Your task to perform on an android device: open a bookmark in the chrome app Image 0: 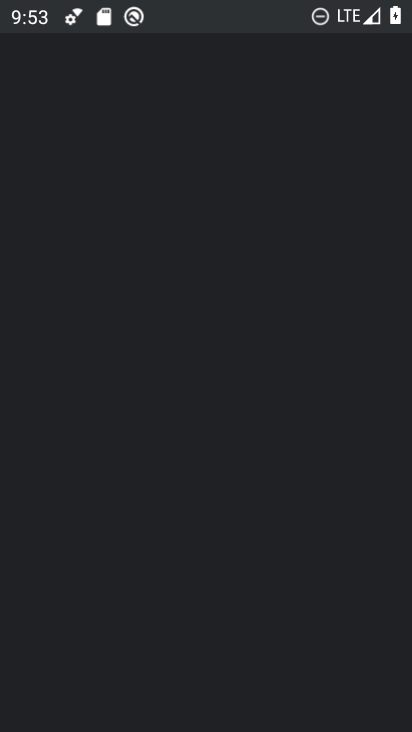
Step 0: drag from (353, 597) to (236, 163)
Your task to perform on an android device: open a bookmark in the chrome app Image 1: 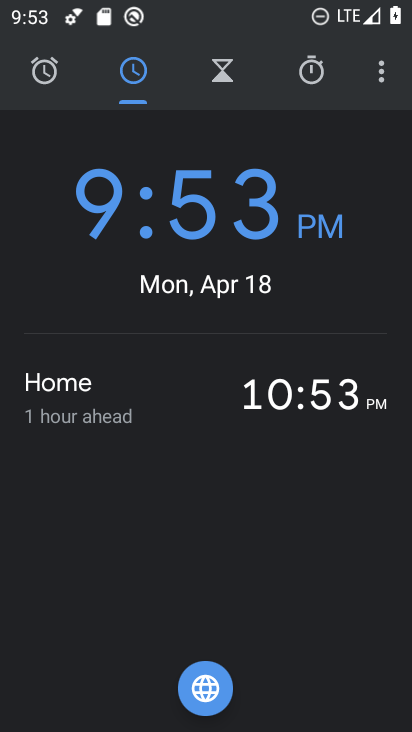
Step 1: press home button
Your task to perform on an android device: open a bookmark in the chrome app Image 2: 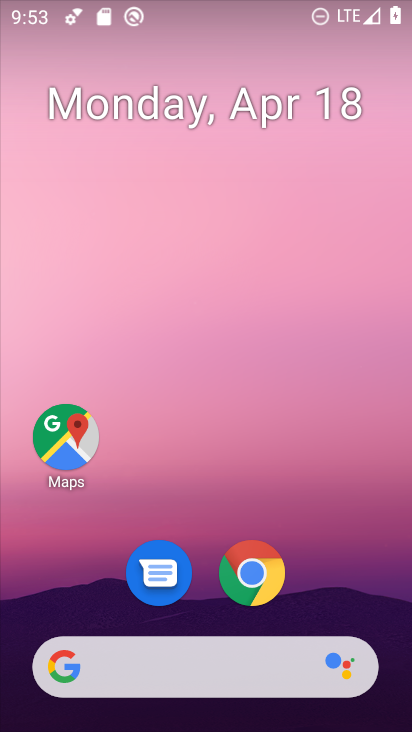
Step 2: drag from (326, 527) to (245, 45)
Your task to perform on an android device: open a bookmark in the chrome app Image 3: 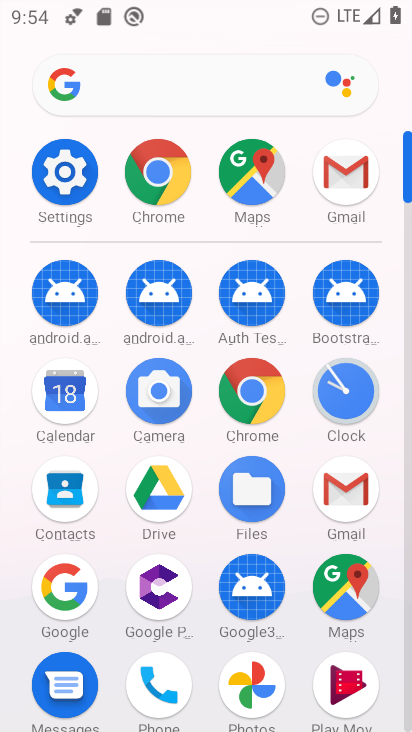
Step 3: click (246, 398)
Your task to perform on an android device: open a bookmark in the chrome app Image 4: 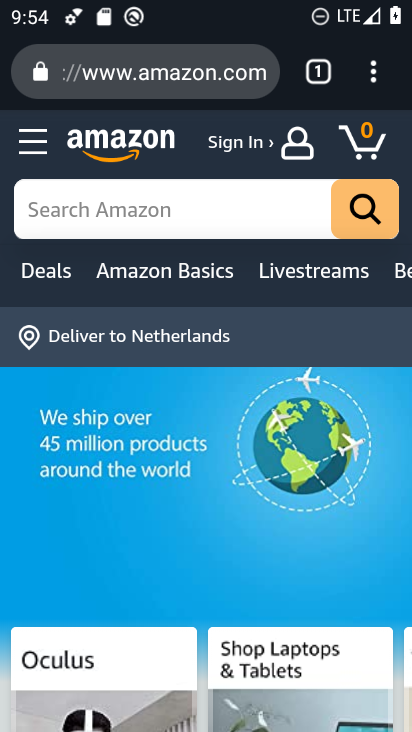
Step 4: press back button
Your task to perform on an android device: open a bookmark in the chrome app Image 5: 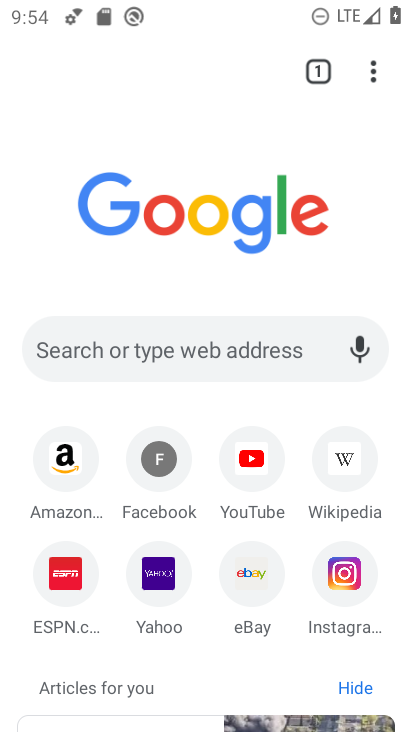
Step 5: click (371, 64)
Your task to perform on an android device: open a bookmark in the chrome app Image 6: 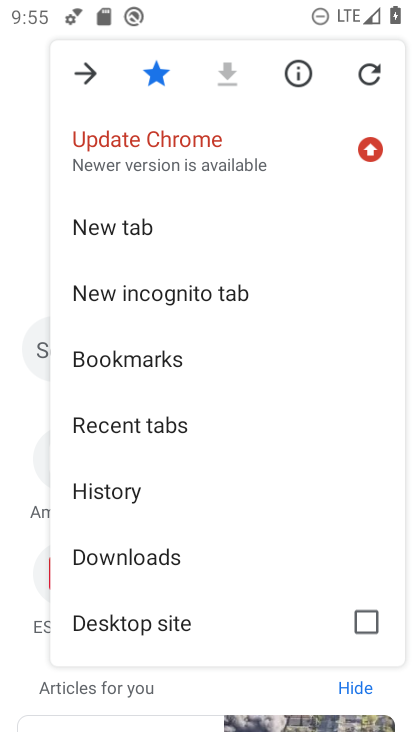
Step 6: click (153, 345)
Your task to perform on an android device: open a bookmark in the chrome app Image 7: 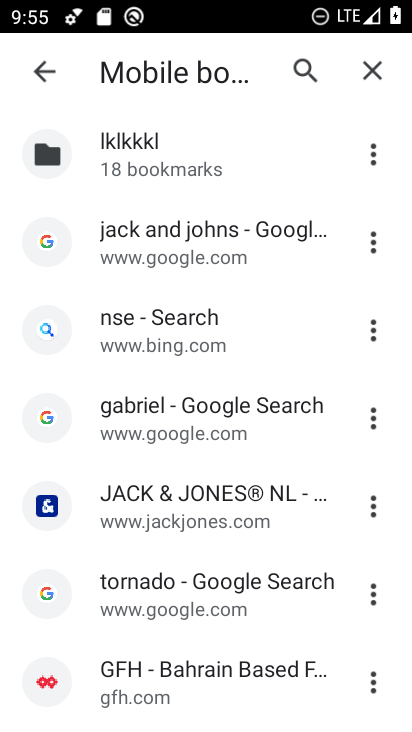
Step 7: task complete